Your task to perform on an android device: Go to Yahoo.com Image 0: 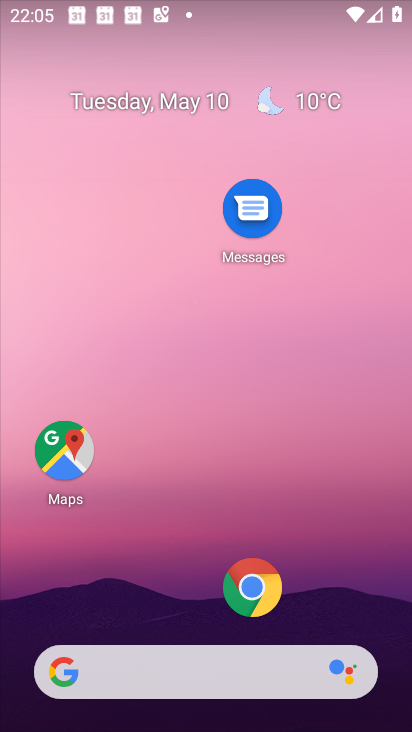
Step 0: click (254, 596)
Your task to perform on an android device: Go to Yahoo.com Image 1: 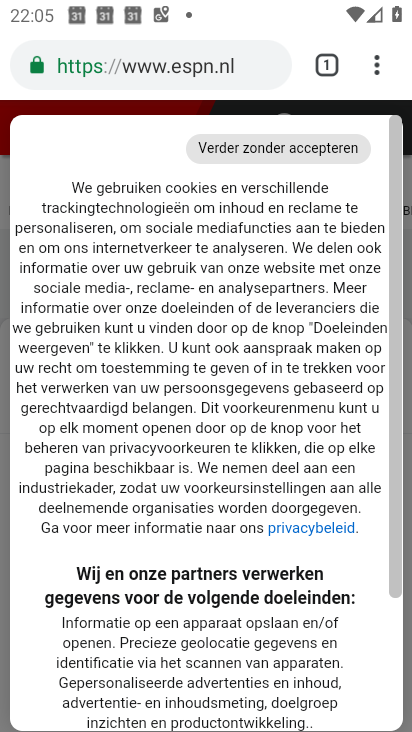
Step 1: click (372, 64)
Your task to perform on an android device: Go to Yahoo.com Image 2: 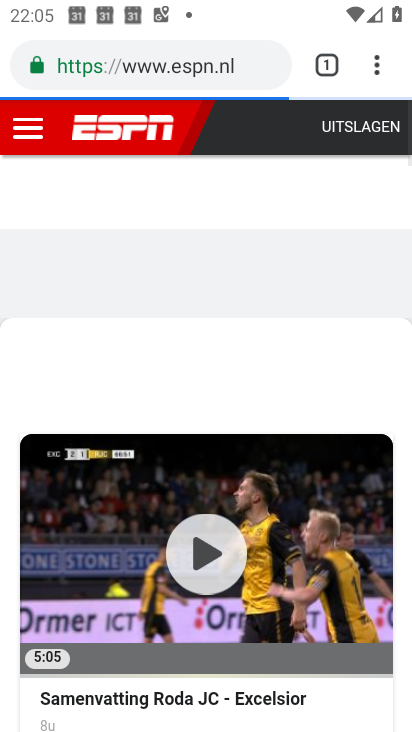
Step 2: click (391, 55)
Your task to perform on an android device: Go to Yahoo.com Image 3: 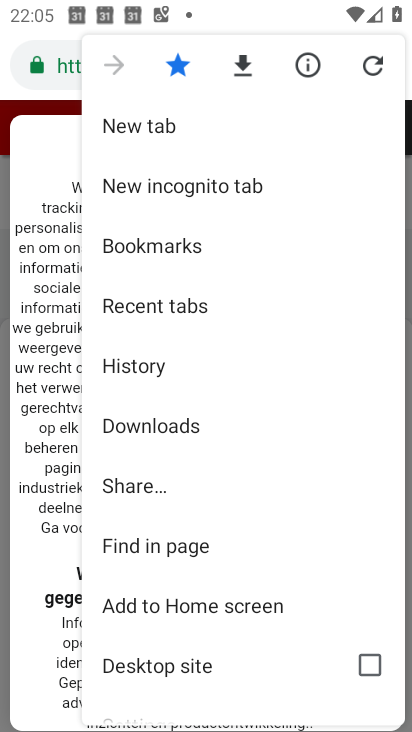
Step 3: click (142, 133)
Your task to perform on an android device: Go to Yahoo.com Image 4: 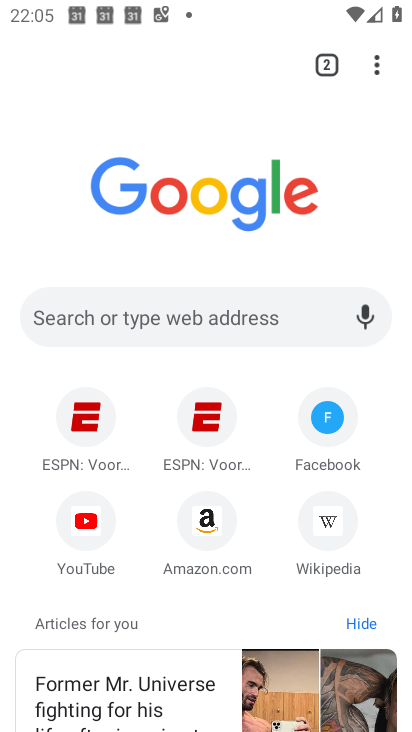
Step 4: click (243, 302)
Your task to perform on an android device: Go to Yahoo.com Image 5: 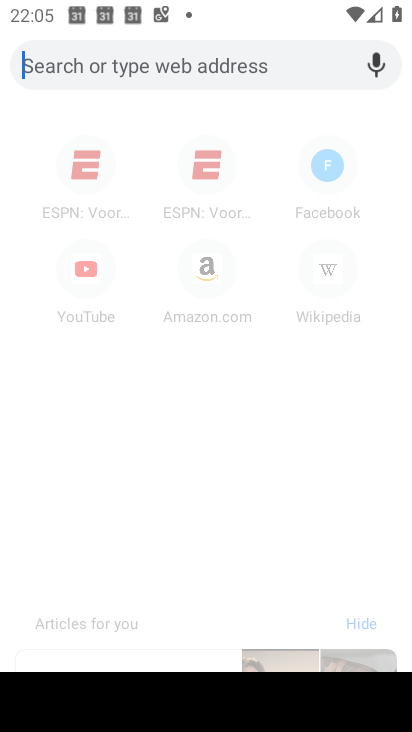
Step 5: type "yahoo.com"
Your task to perform on an android device: Go to Yahoo.com Image 6: 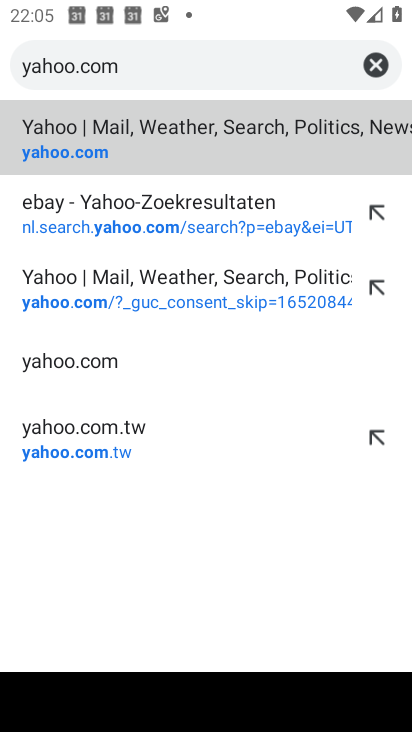
Step 6: click (116, 161)
Your task to perform on an android device: Go to Yahoo.com Image 7: 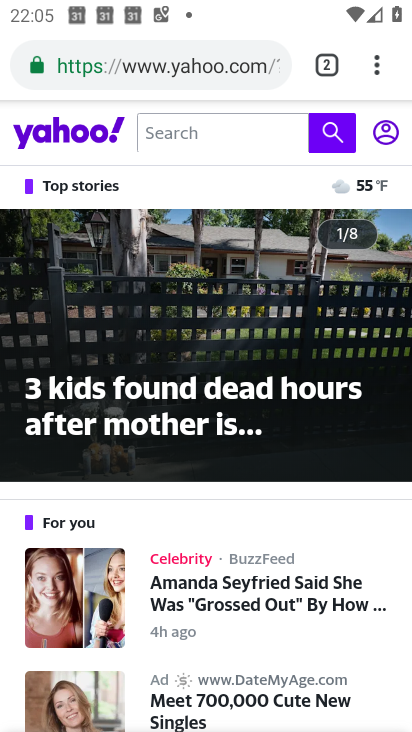
Step 7: task complete